Your task to perform on an android device: turn on wifi Image 0: 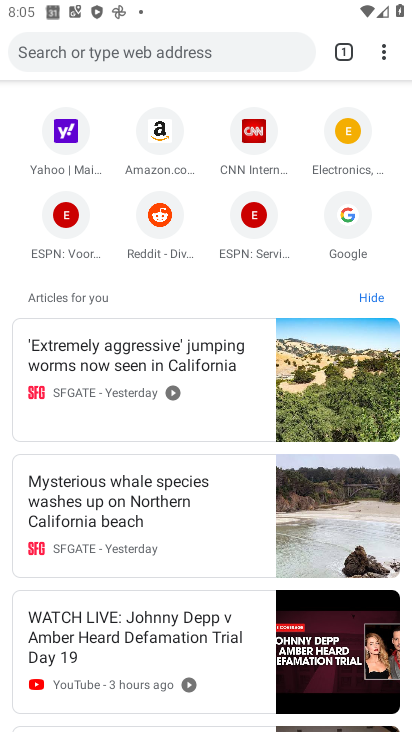
Step 0: press home button
Your task to perform on an android device: turn on wifi Image 1: 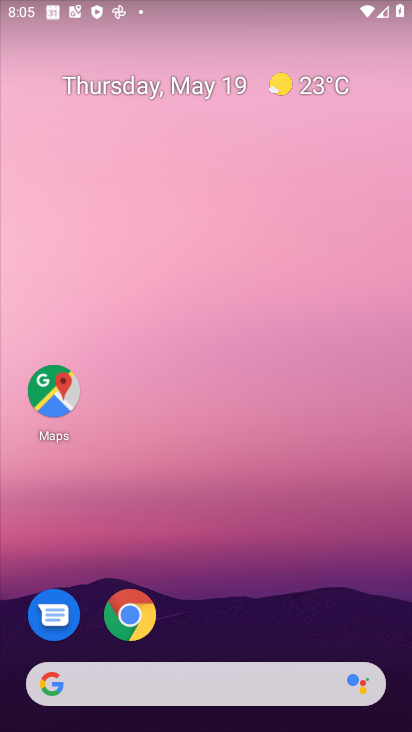
Step 1: task complete